Your task to perform on an android device: choose inbox layout in the gmail app Image 0: 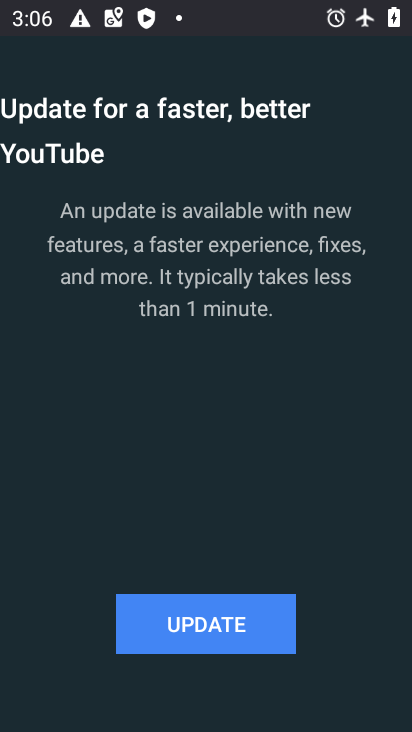
Step 0: press home button
Your task to perform on an android device: choose inbox layout in the gmail app Image 1: 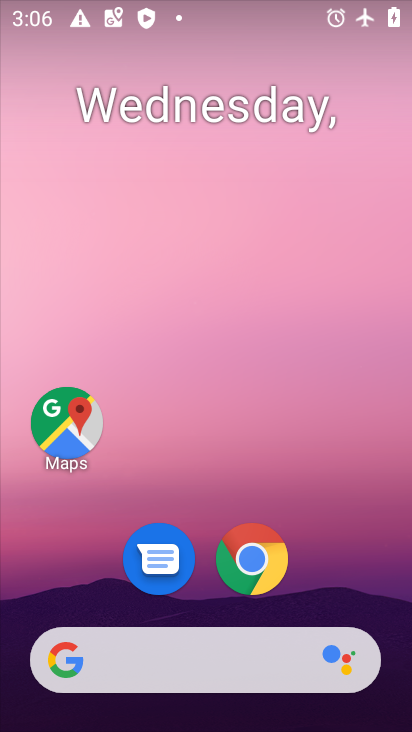
Step 1: drag from (199, 721) to (191, 293)
Your task to perform on an android device: choose inbox layout in the gmail app Image 2: 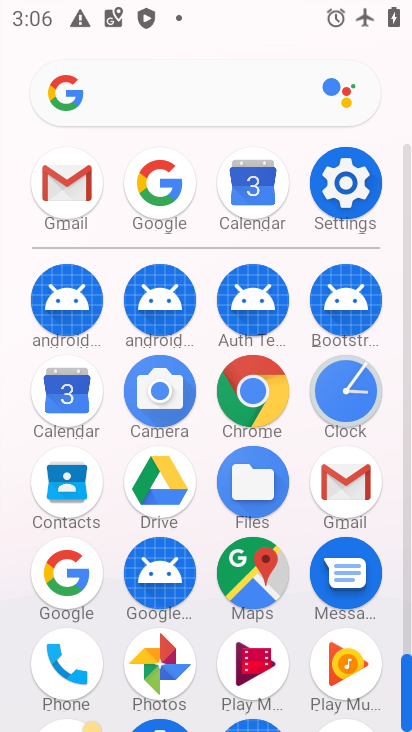
Step 2: click (349, 476)
Your task to perform on an android device: choose inbox layout in the gmail app Image 3: 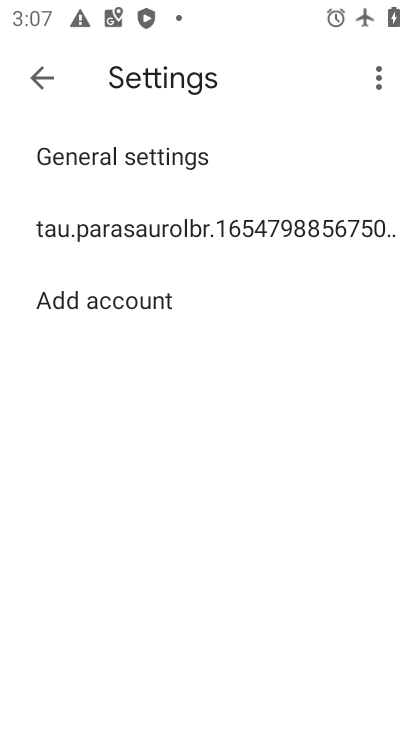
Step 3: click (115, 229)
Your task to perform on an android device: choose inbox layout in the gmail app Image 4: 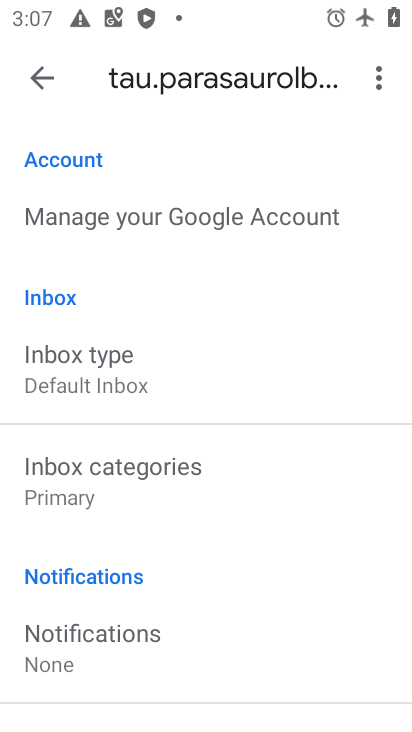
Step 4: drag from (142, 580) to (156, 330)
Your task to perform on an android device: choose inbox layout in the gmail app Image 5: 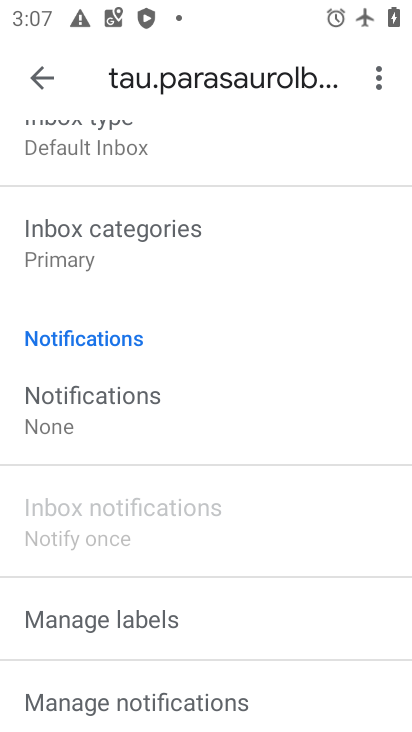
Step 5: drag from (164, 208) to (167, 511)
Your task to perform on an android device: choose inbox layout in the gmail app Image 6: 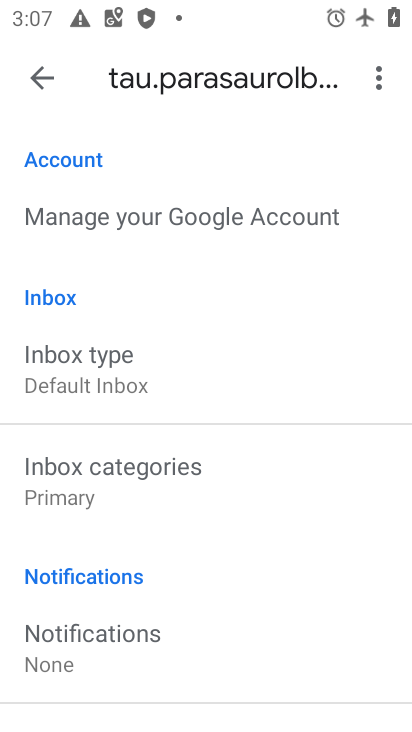
Step 6: click (101, 367)
Your task to perform on an android device: choose inbox layout in the gmail app Image 7: 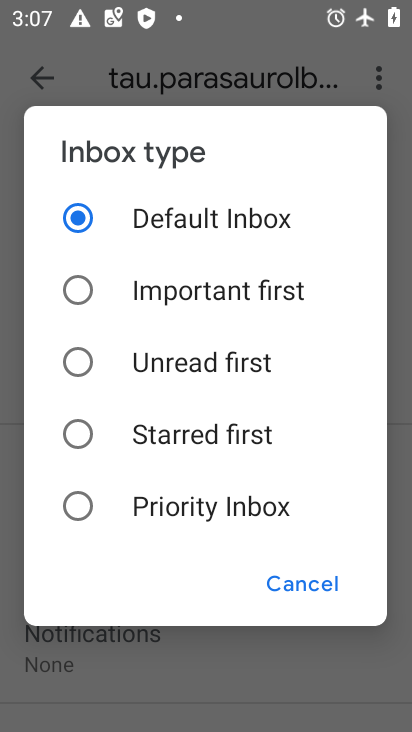
Step 7: click (73, 427)
Your task to perform on an android device: choose inbox layout in the gmail app Image 8: 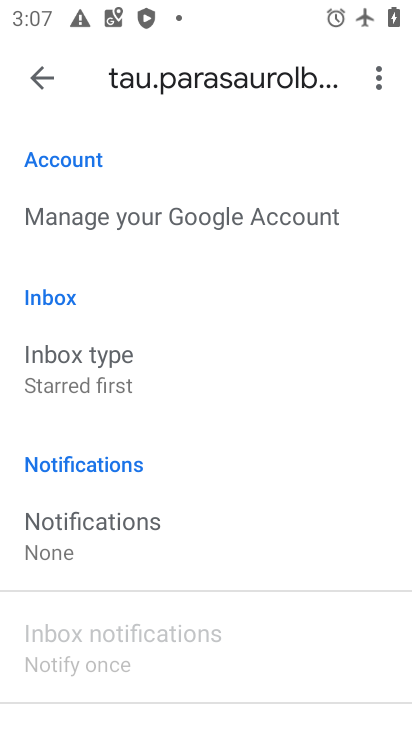
Step 8: task complete